Your task to perform on an android device: Open Chrome and go to settings Image 0: 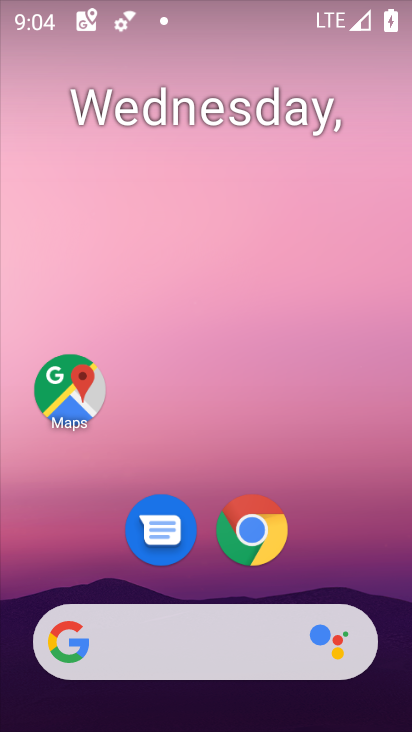
Step 0: click (257, 515)
Your task to perform on an android device: Open Chrome and go to settings Image 1: 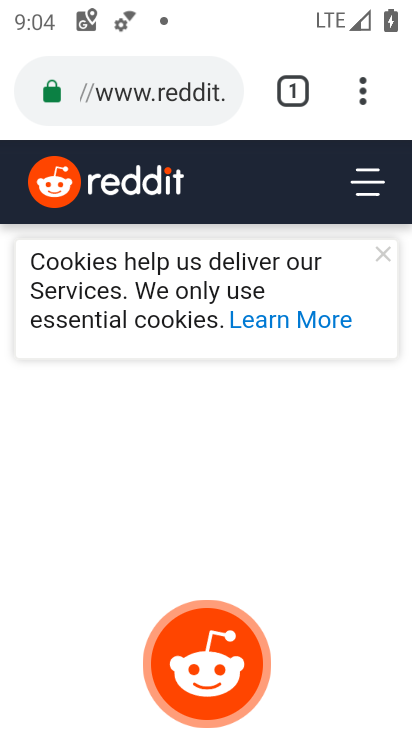
Step 1: press back button
Your task to perform on an android device: Open Chrome and go to settings Image 2: 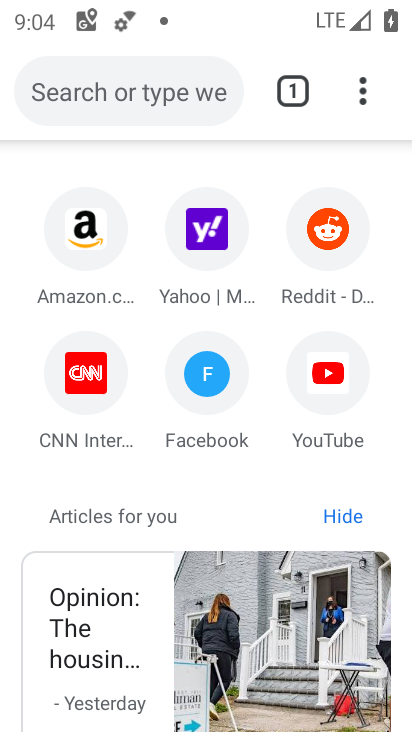
Step 2: click (363, 89)
Your task to perform on an android device: Open Chrome and go to settings Image 3: 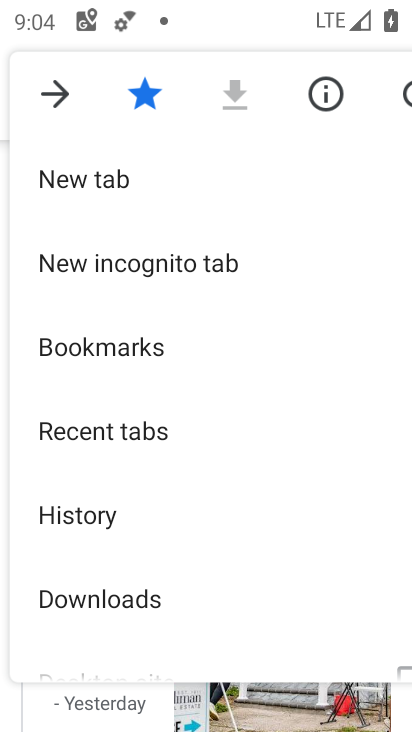
Step 3: drag from (172, 631) to (218, 287)
Your task to perform on an android device: Open Chrome and go to settings Image 4: 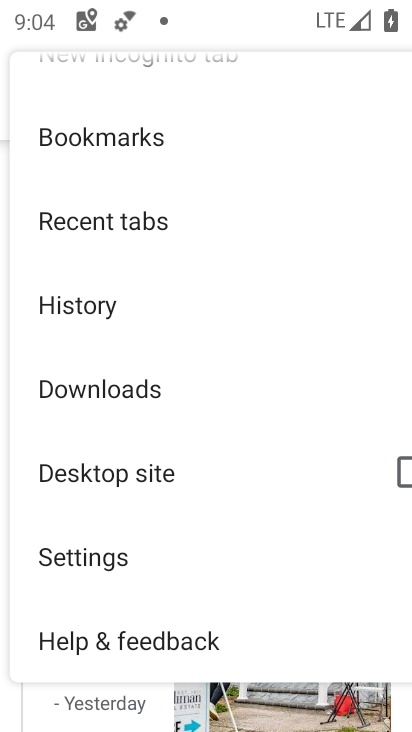
Step 4: click (196, 564)
Your task to perform on an android device: Open Chrome and go to settings Image 5: 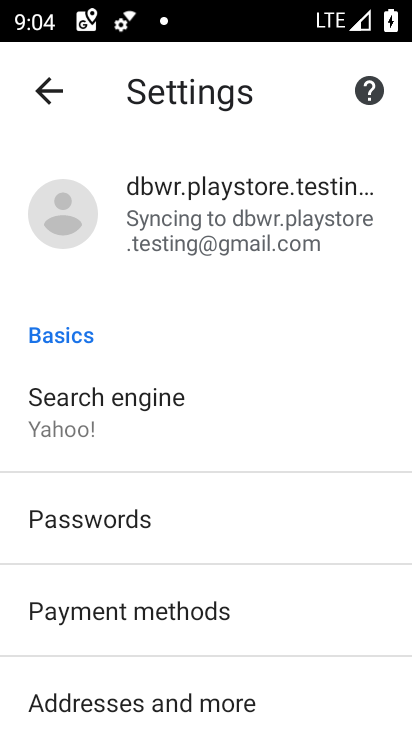
Step 5: task complete